Your task to perform on an android device: set an alarm Image 0: 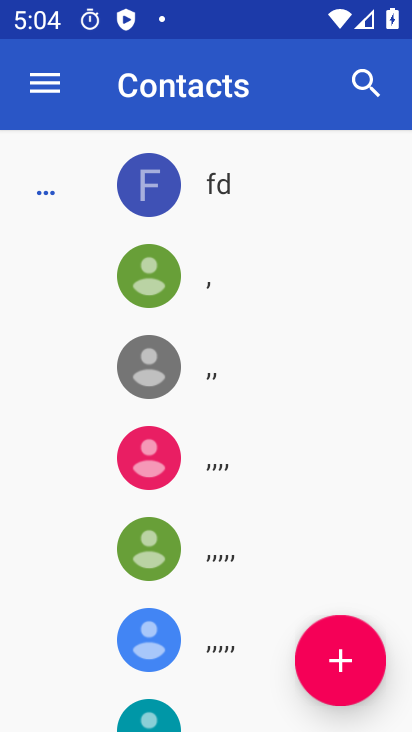
Step 0: press home button
Your task to perform on an android device: set an alarm Image 1: 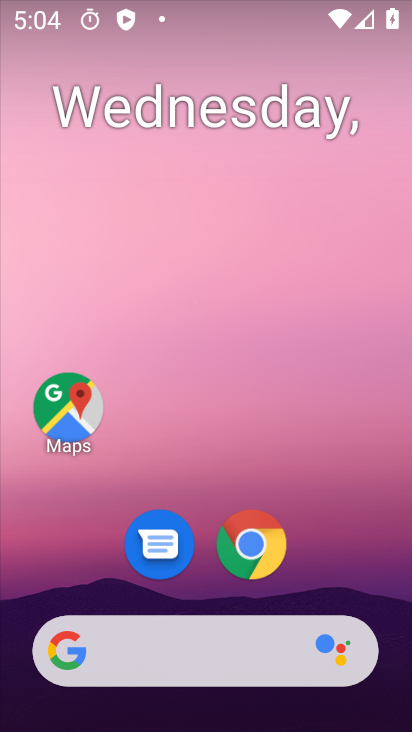
Step 1: drag from (226, 619) to (187, 140)
Your task to perform on an android device: set an alarm Image 2: 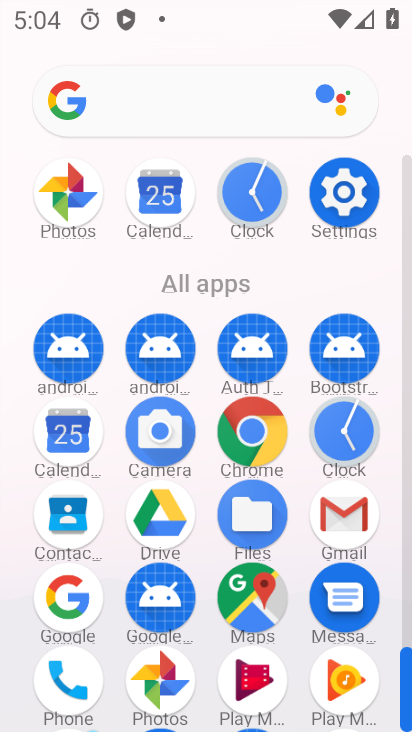
Step 2: click (242, 179)
Your task to perform on an android device: set an alarm Image 3: 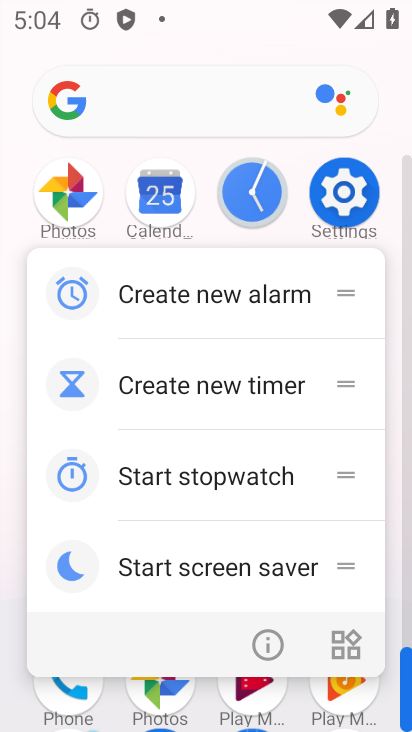
Step 3: click (248, 206)
Your task to perform on an android device: set an alarm Image 4: 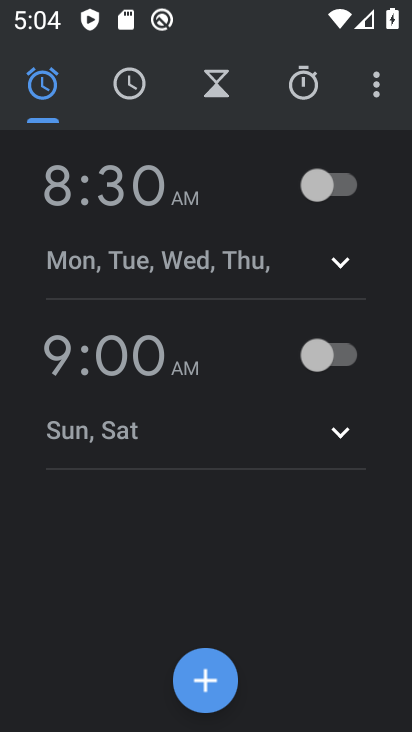
Step 4: click (221, 678)
Your task to perform on an android device: set an alarm Image 5: 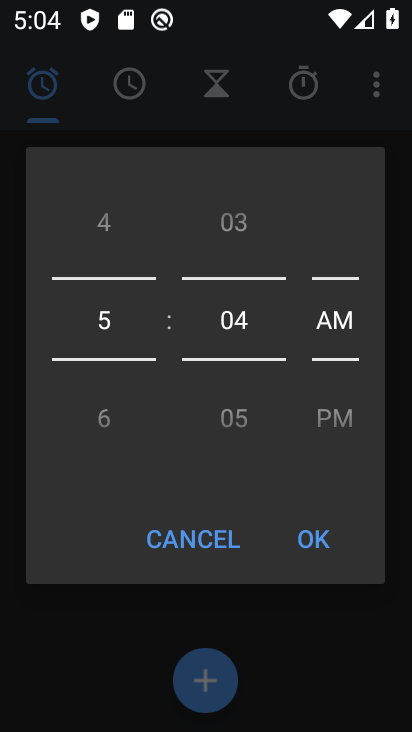
Step 5: drag from (99, 341) to (100, 194)
Your task to perform on an android device: set an alarm Image 6: 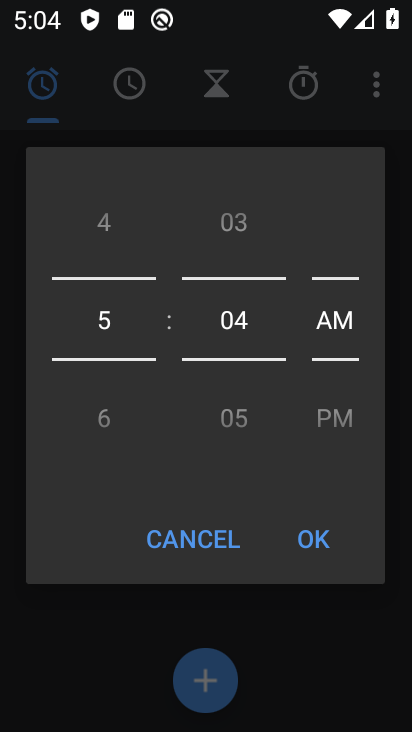
Step 6: drag from (108, 308) to (114, 455)
Your task to perform on an android device: set an alarm Image 7: 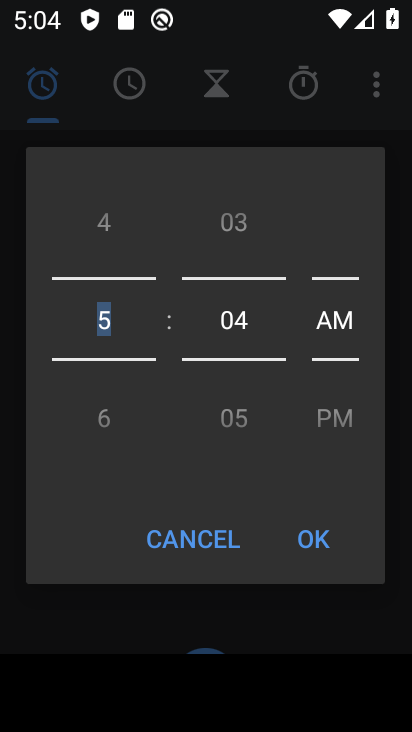
Step 7: click (309, 541)
Your task to perform on an android device: set an alarm Image 8: 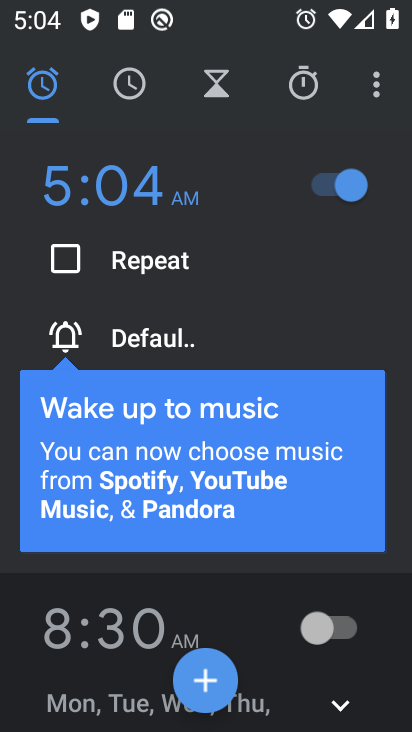
Step 8: task complete